Your task to perform on an android device: turn off translation in the chrome app Image 0: 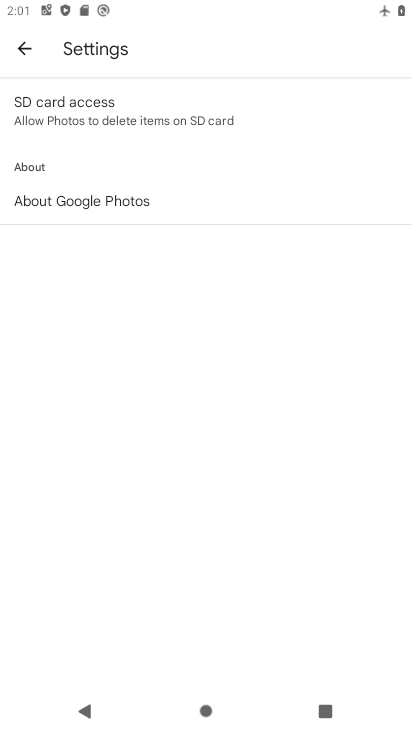
Step 0: press home button
Your task to perform on an android device: turn off translation in the chrome app Image 1: 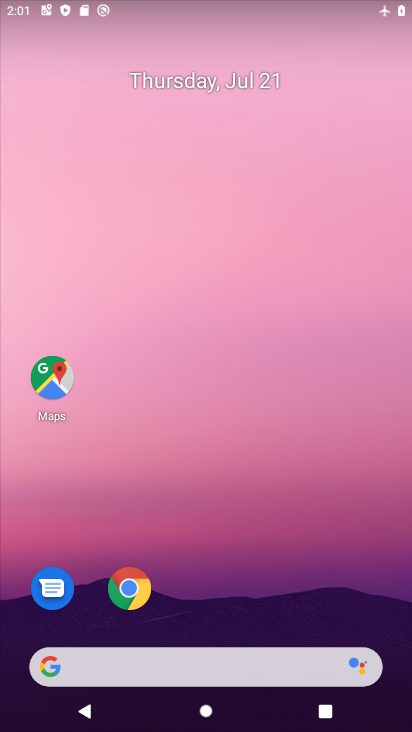
Step 1: click (126, 600)
Your task to perform on an android device: turn off translation in the chrome app Image 2: 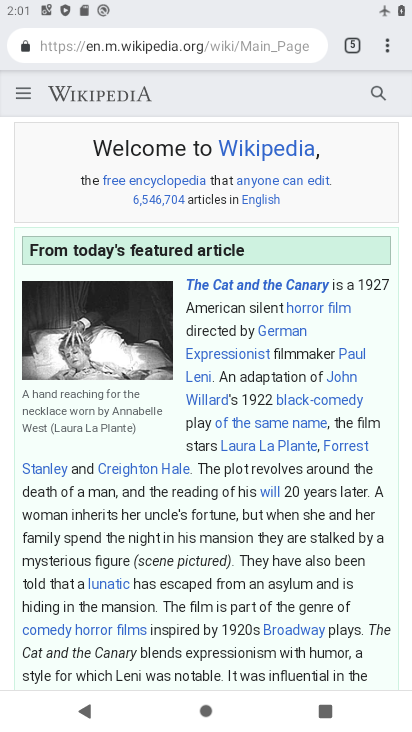
Step 2: click (379, 40)
Your task to perform on an android device: turn off translation in the chrome app Image 3: 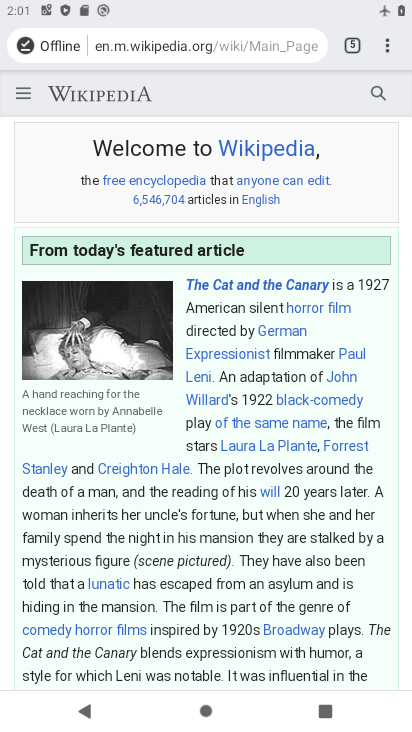
Step 3: drag from (384, 50) to (227, 507)
Your task to perform on an android device: turn off translation in the chrome app Image 4: 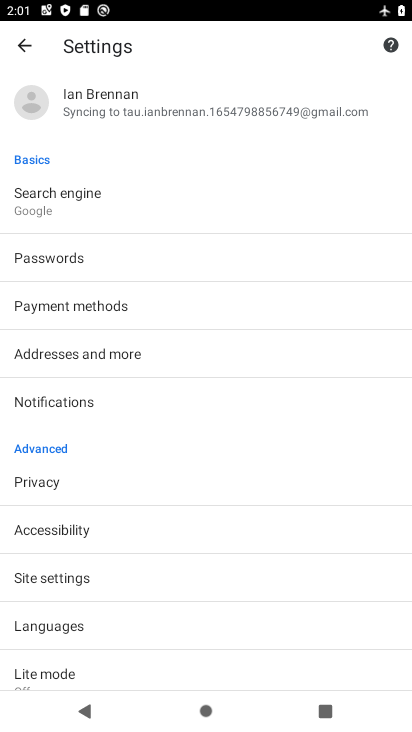
Step 4: click (85, 620)
Your task to perform on an android device: turn off translation in the chrome app Image 5: 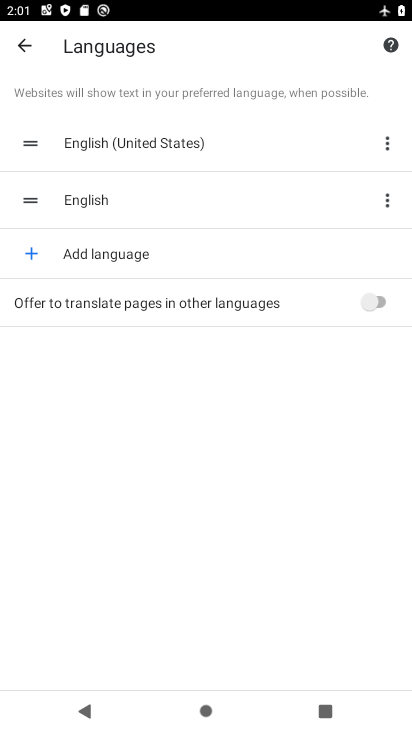
Step 5: task complete